Your task to perform on an android device: change the clock display to show seconds Image 0: 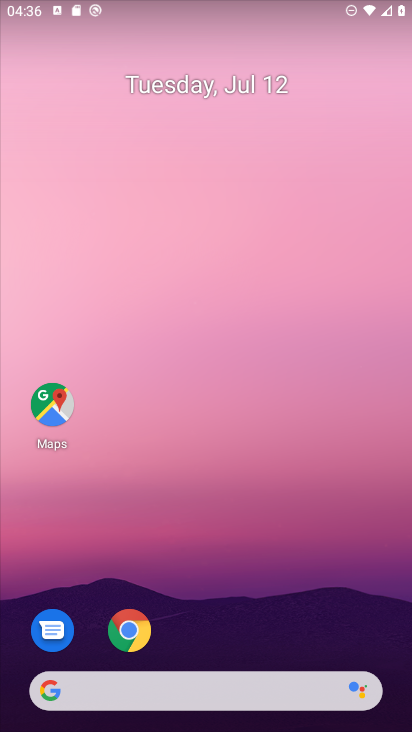
Step 0: drag from (379, 651) to (305, 163)
Your task to perform on an android device: change the clock display to show seconds Image 1: 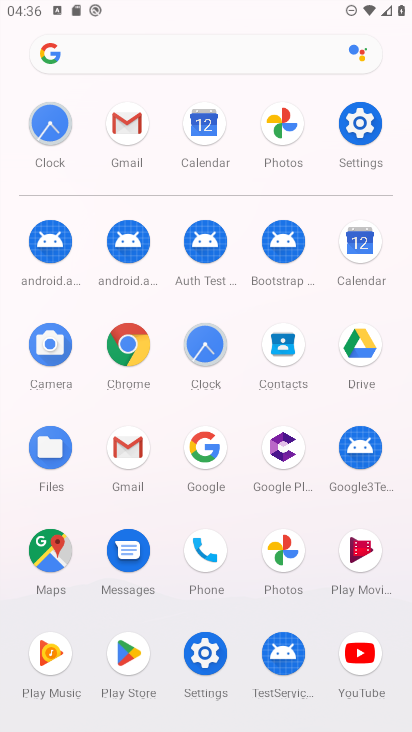
Step 1: click (205, 346)
Your task to perform on an android device: change the clock display to show seconds Image 2: 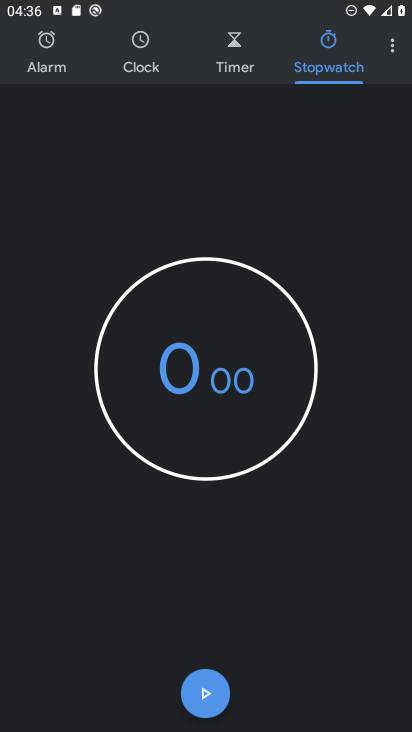
Step 2: click (392, 52)
Your task to perform on an android device: change the clock display to show seconds Image 3: 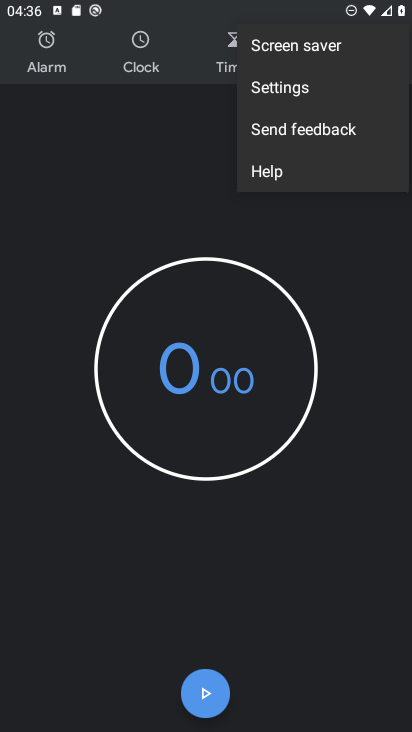
Step 3: click (271, 87)
Your task to perform on an android device: change the clock display to show seconds Image 4: 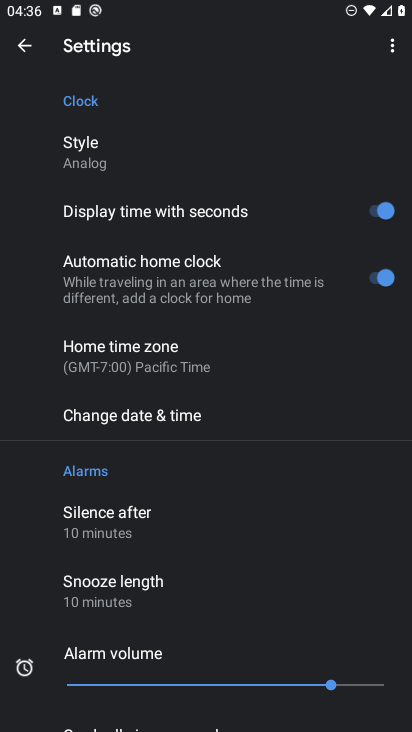
Step 4: task complete